Your task to perform on an android device: open wifi settings Image 0: 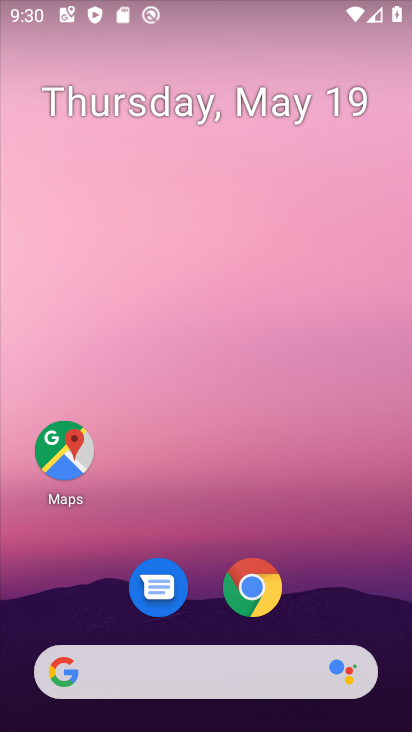
Step 0: drag from (199, 659) to (213, 170)
Your task to perform on an android device: open wifi settings Image 1: 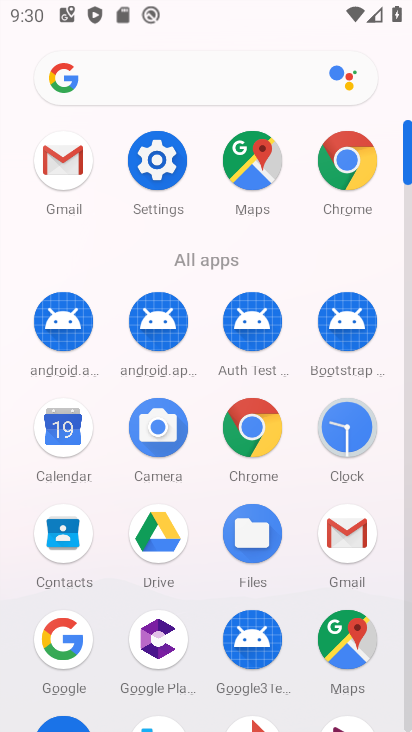
Step 1: click (147, 178)
Your task to perform on an android device: open wifi settings Image 2: 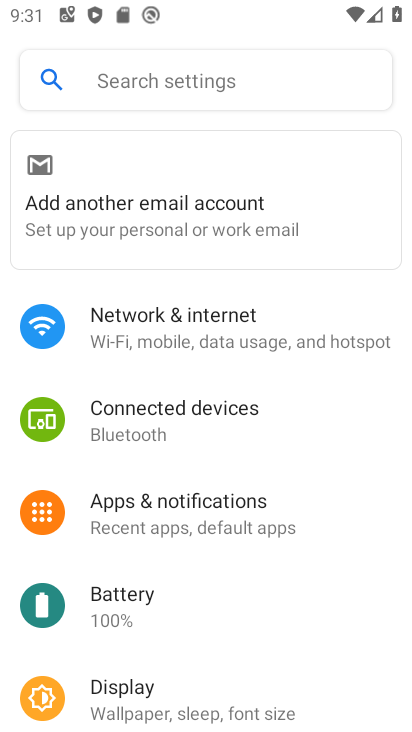
Step 2: click (137, 330)
Your task to perform on an android device: open wifi settings Image 3: 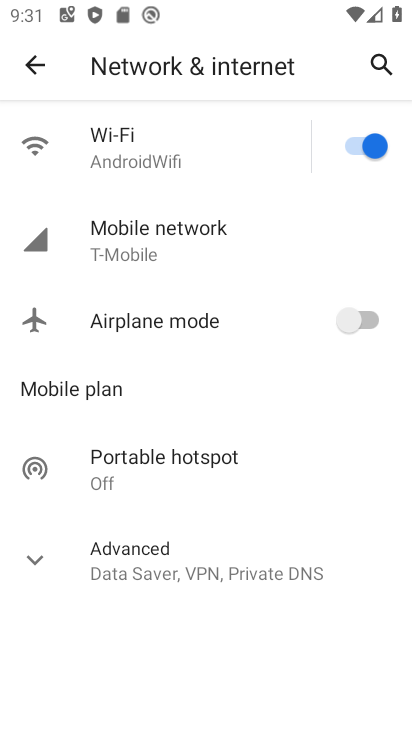
Step 3: click (205, 140)
Your task to perform on an android device: open wifi settings Image 4: 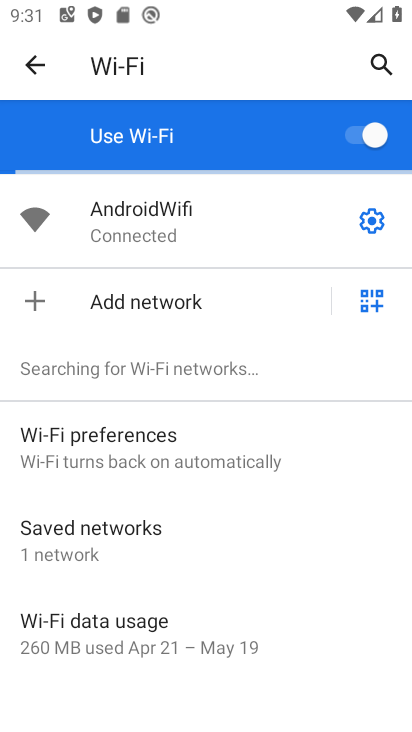
Step 4: task complete